Your task to perform on an android device: toggle improve location accuracy Image 0: 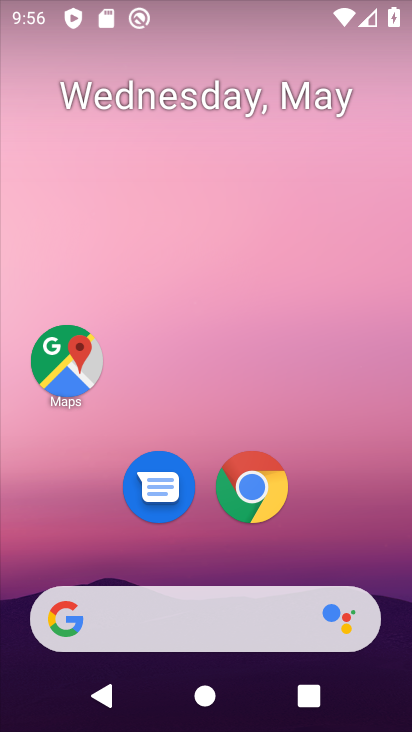
Step 0: drag from (247, 536) to (219, 122)
Your task to perform on an android device: toggle improve location accuracy Image 1: 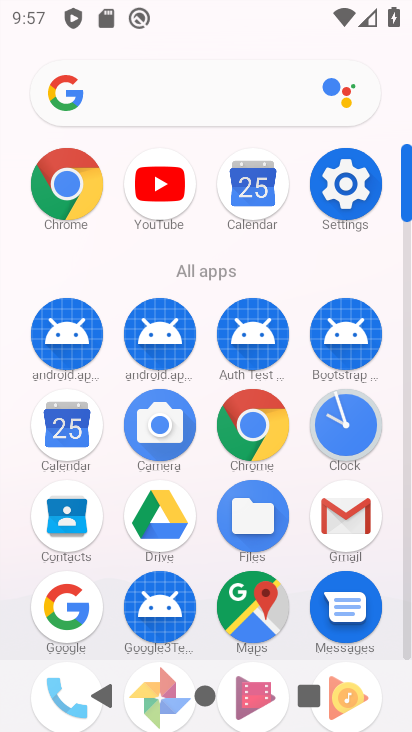
Step 1: click (339, 198)
Your task to perform on an android device: toggle improve location accuracy Image 2: 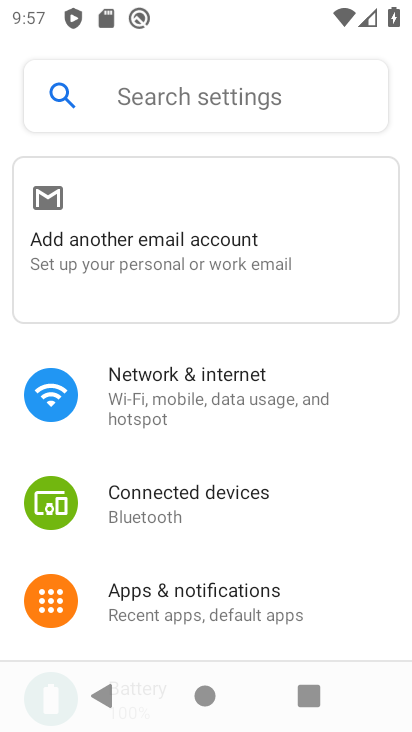
Step 2: click (215, 105)
Your task to perform on an android device: toggle improve location accuracy Image 3: 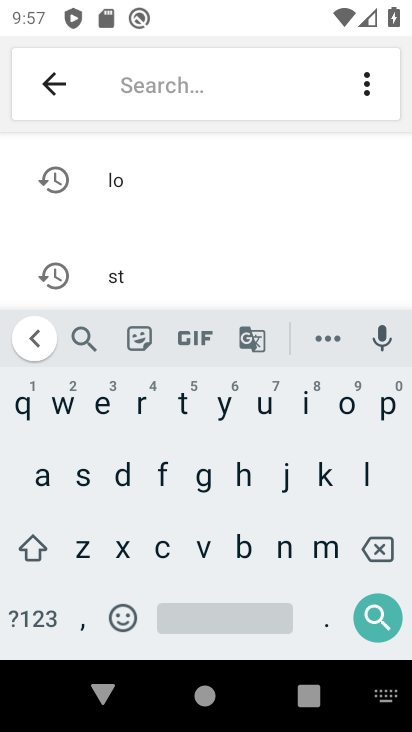
Step 3: click (135, 175)
Your task to perform on an android device: toggle improve location accuracy Image 4: 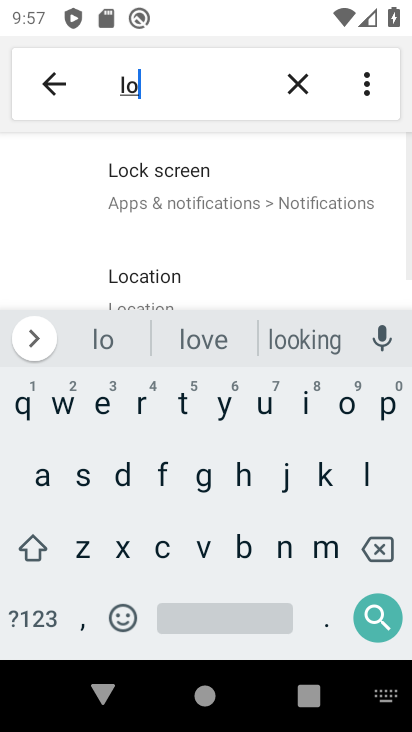
Step 4: drag from (140, 274) to (160, 132)
Your task to perform on an android device: toggle improve location accuracy Image 5: 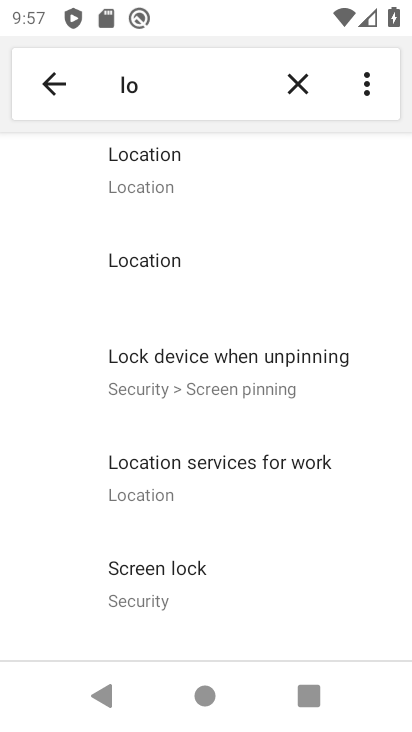
Step 5: drag from (129, 532) to (171, 576)
Your task to perform on an android device: toggle improve location accuracy Image 6: 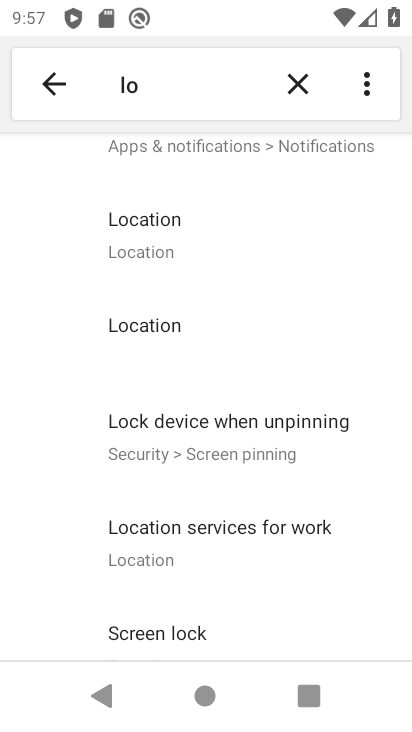
Step 6: click (156, 223)
Your task to perform on an android device: toggle improve location accuracy Image 7: 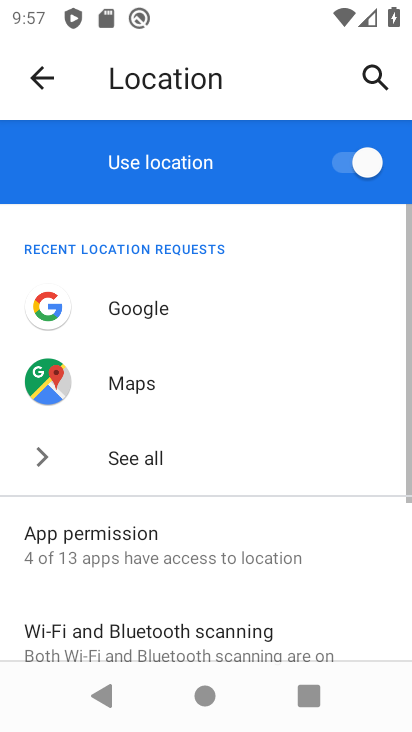
Step 7: drag from (74, 547) to (95, 335)
Your task to perform on an android device: toggle improve location accuracy Image 8: 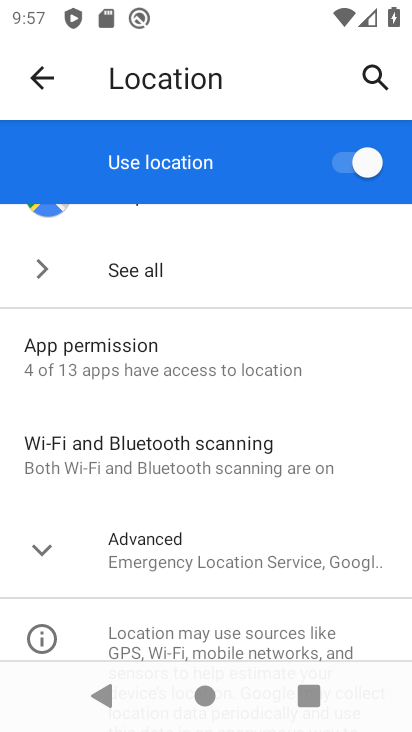
Step 8: click (50, 547)
Your task to perform on an android device: toggle improve location accuracy Image 9: 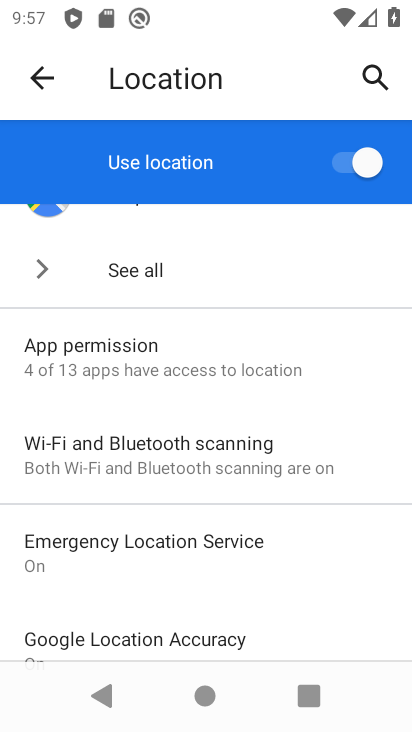
Step 9: drag from (223, 516) to (265, 399)
Your task to perform on an android device: toggle improve location accuracy Image 10: 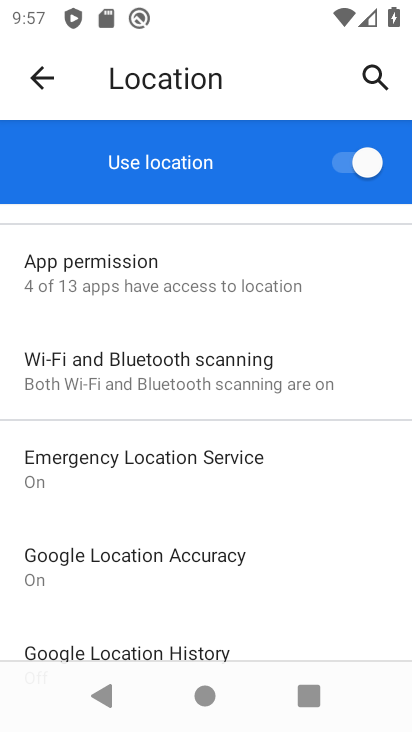
Step 10: click (192, 561)
Your task to perform on an android device: toggle improve location accuracy Image 11: 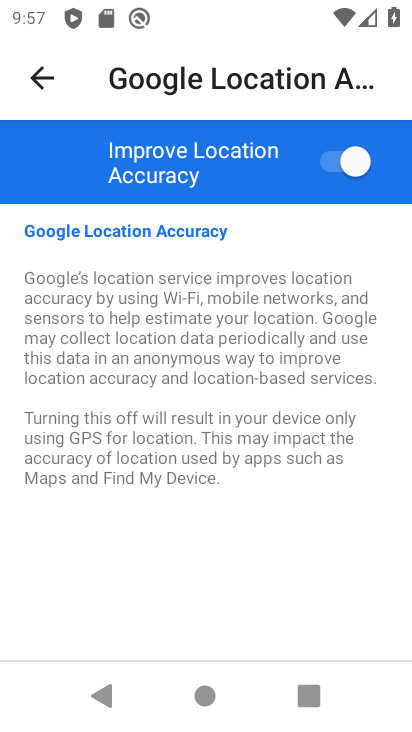
Step 11: task complete